Your task to perform on an android device: clear history in the chrome app Image 0: 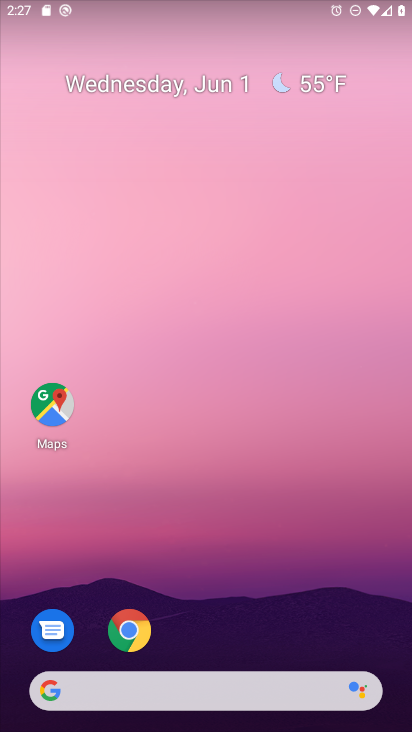
Step 0: drag from (271, 556) to (307, 112)
Your task to perform on an android device: clear history in the chrome app Image 1: 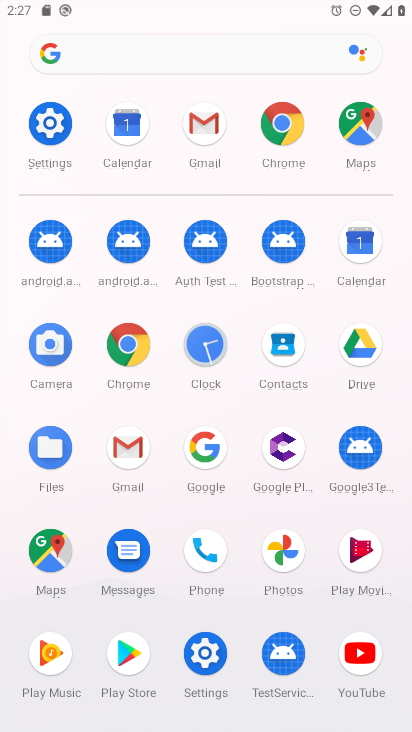
Step 1: click (126, 354)
Your task to perform on an android device: clear history in the chrome app Image 2: 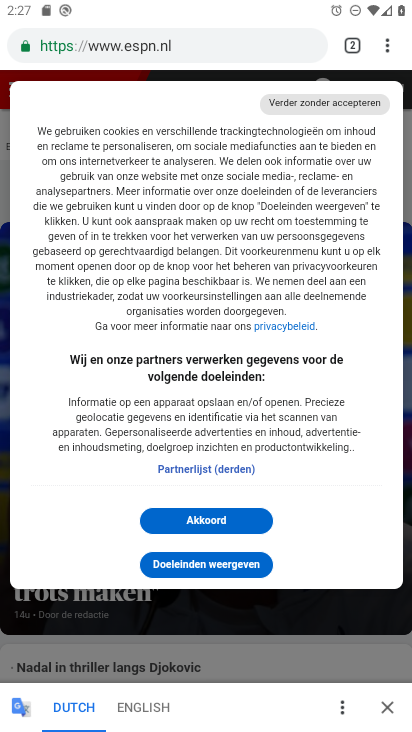
Step 2: drag from (389, 65) to (255, 256)
Your task to perform on an android device: clear history in the chrome app Image 3: 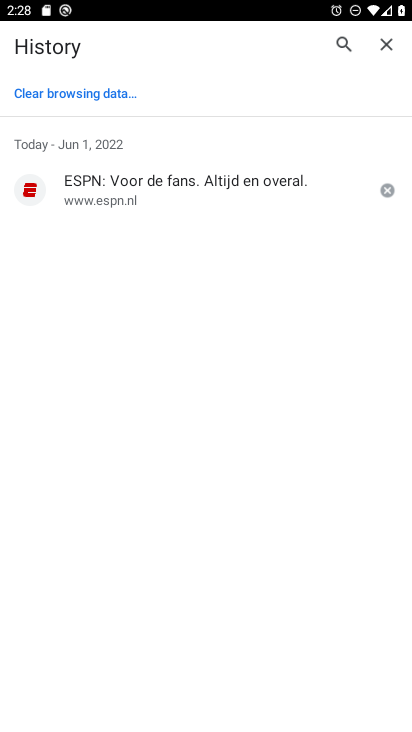
Step 3: click (382, 187)
Your task to perform on an android device: clear history in the chrome app Image 4: 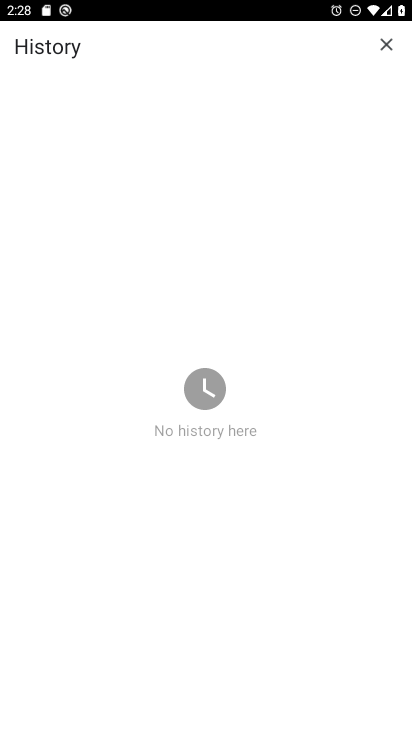
Step 4: task complete